Your task to perform on an android device: turn notification dots on Image 0: 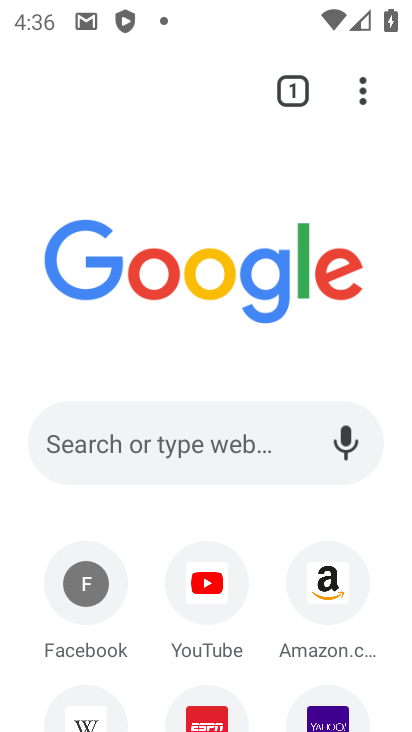
Step 0: press home button
Your task to perform on an android device: turn notification dots on Image 1: 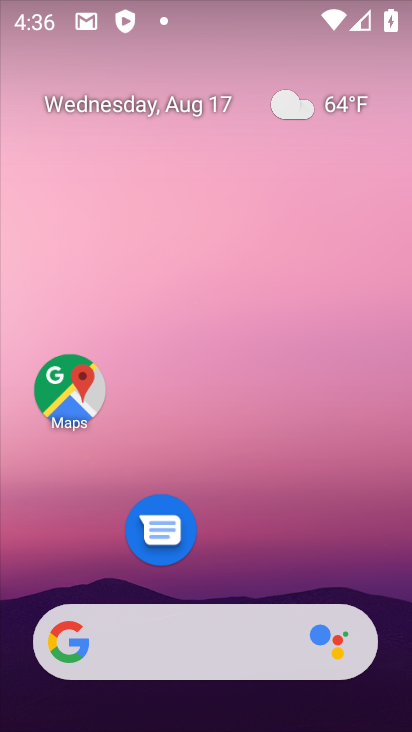
Step 1: drag from (207, 568) to (248, 114)
Your task to perform on an android device: turn notification dots on Image 2: 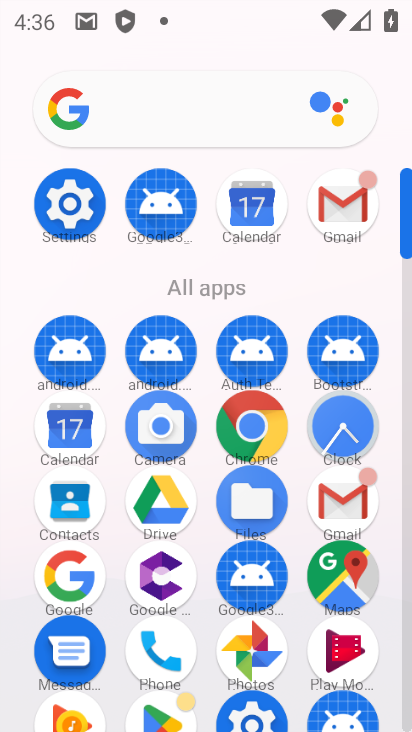
Step 2: click (70, 195)
Your task to perform on an android device: turn notification dots on Image 3: 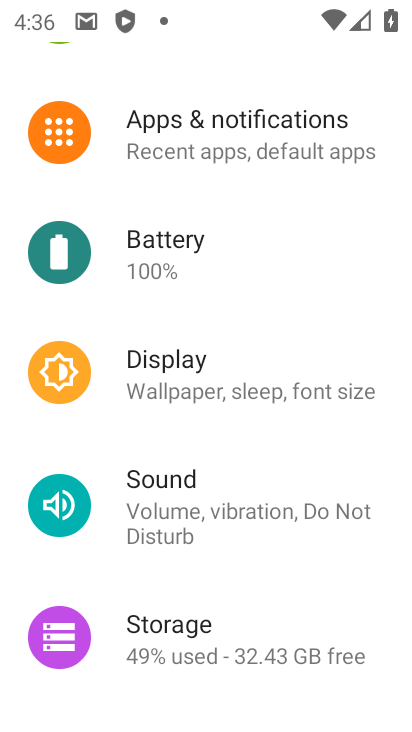
Step 3: click (188, 138)
Your task to perform on an android device: turn notification dots on Image 4: 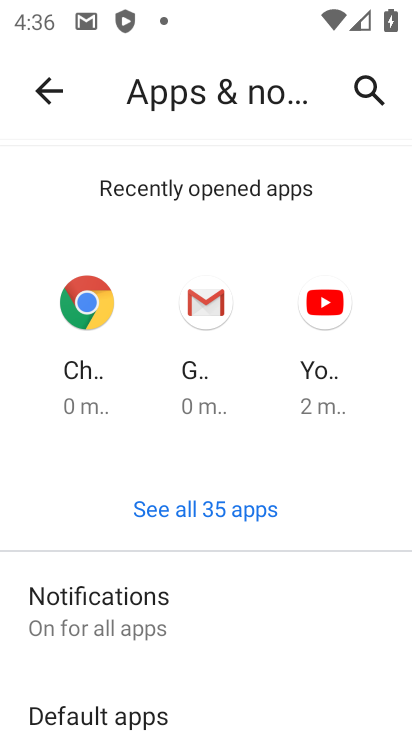
Step 4: click (97, 602)
Your task to perform on an android device: turn notification dots on Image 5: 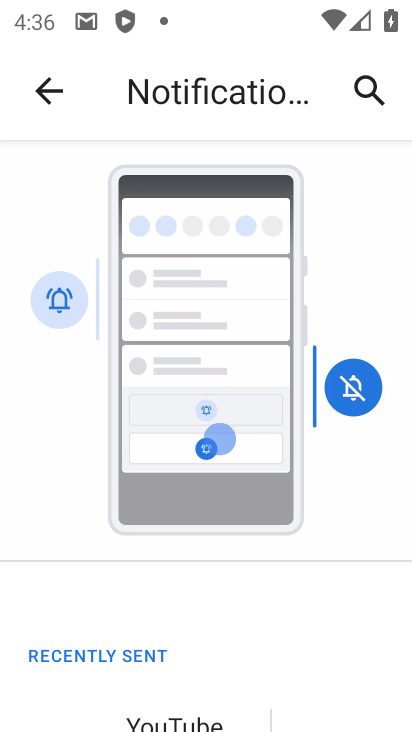
Step 5: drag from (246, 464) to (260, 153)
Your task to perform on an android device: turn notification dots on Image 6: 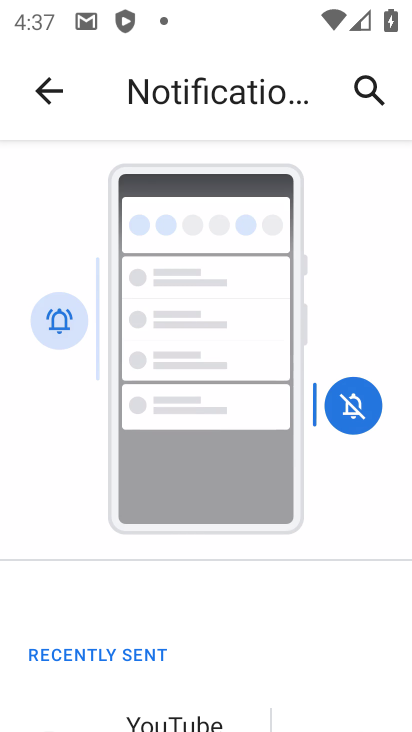
Step 6: click (225, 253)
Your task to perform on an android device: turn notification dots on Image 7: 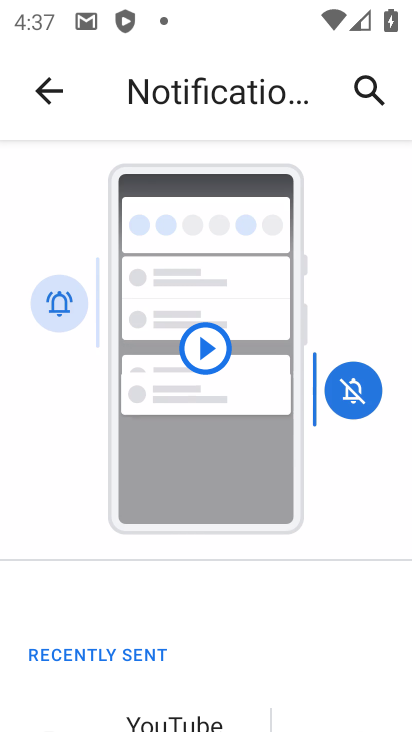
Step 7: click (237, 183)
Your task to perform on an android device: turn notification dots on Image 8: 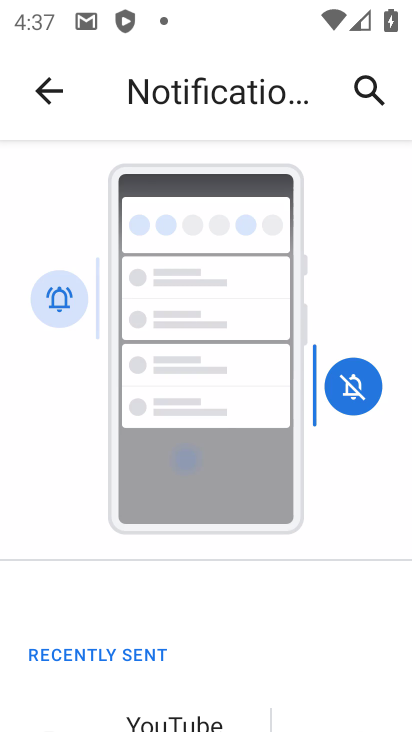
Step 8: click (203, 136)
Your task to perform on an android device: turn notification dots on Image 9: 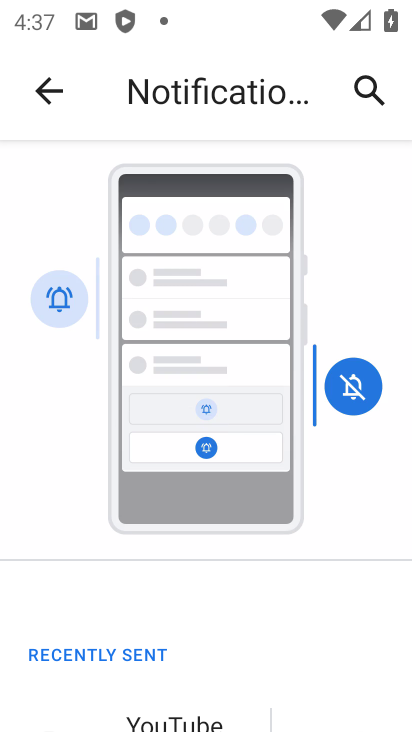
Step 9: drag from (111, 648) to (167, 219)
Your task to perform on an android device: turn notification dots on Image 10: 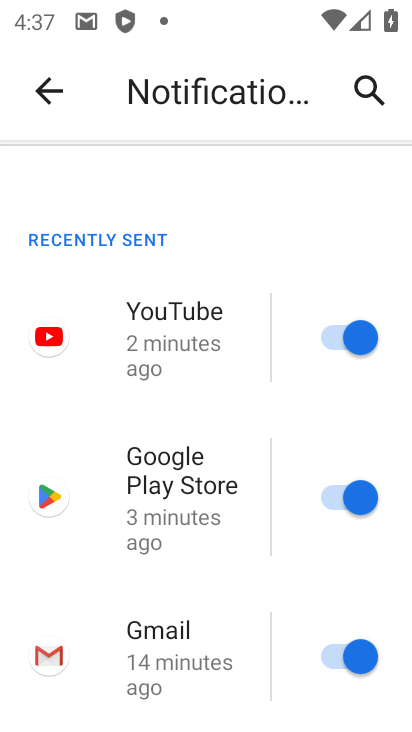
Step 10: drag from (268, 651) to (304, 271)
Your task to perform on an android device: turn notification dots on Image 11: 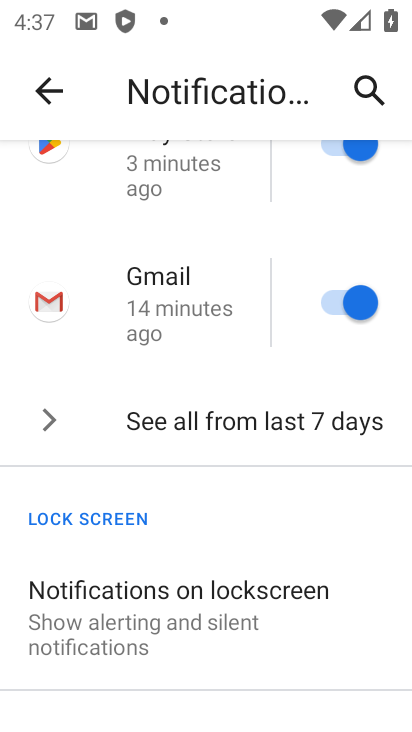
Step 11: drag from (174, 692) to (219, 353)
Your task to perform on an android device: turn notification dots on Image 12: 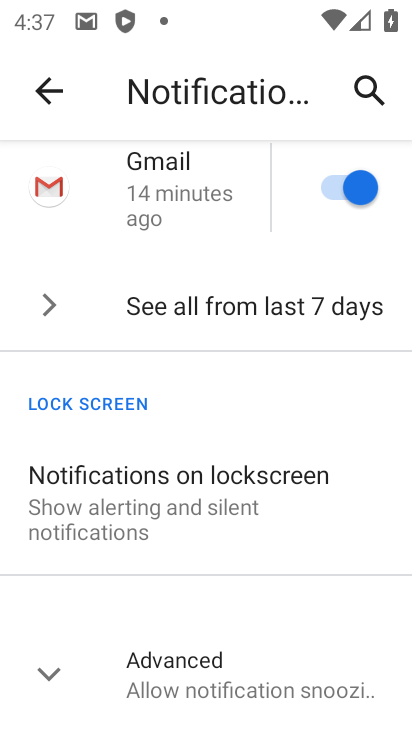
Step 12: drag from (124, 608) to (215, 152)
Your task to perform on an android device: turn notification dots on Image 13: 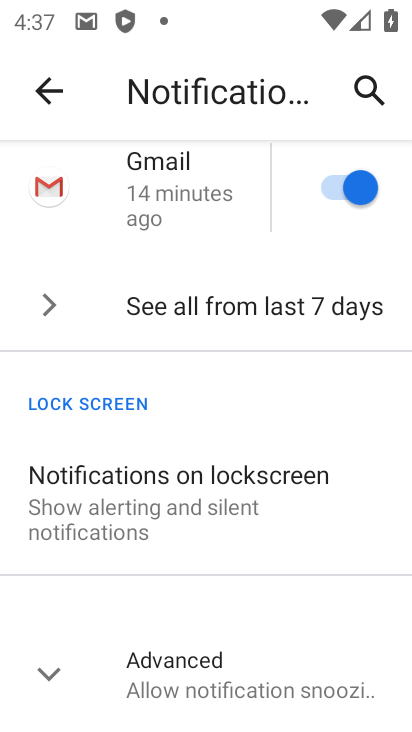
Step 13: drag from (249, 564) to (276, 351)
Your task to perform on an android device: turn notification dots on Image 14: 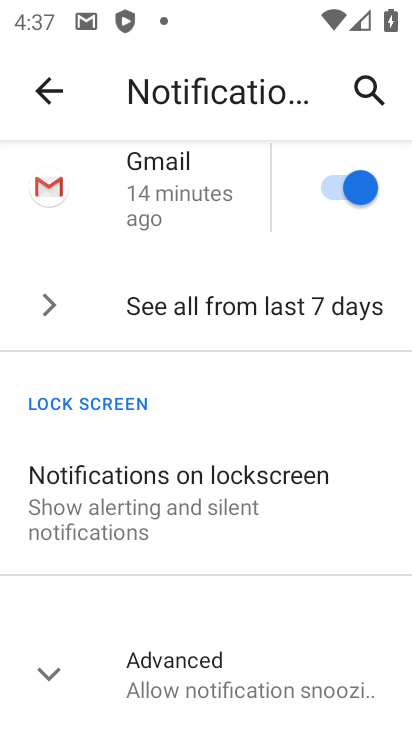
Step 14: drag from (244, 484) to (183, 15)
Your task to perform on an android device: turn notification dots on Image 15: 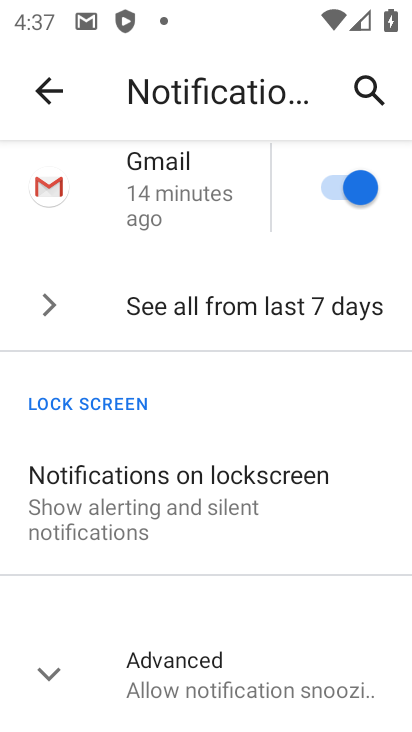
Step 15: click (292, 592)
Your task to perform on an android device: turn notification dots on Image 16: 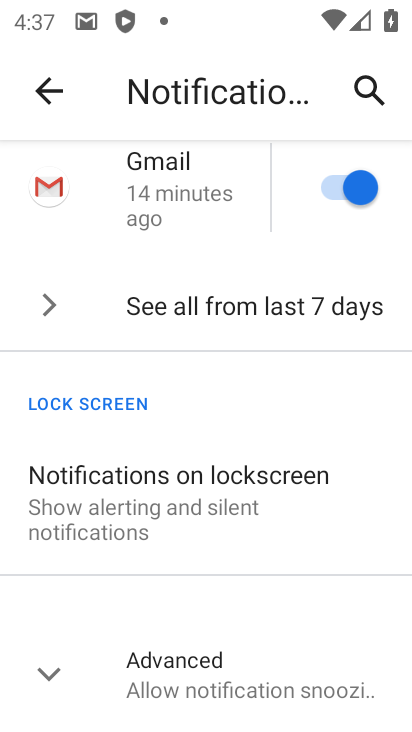
Step 16: click (192, 695)
Your task to perform on an android device: turn notification dots on Image 17: 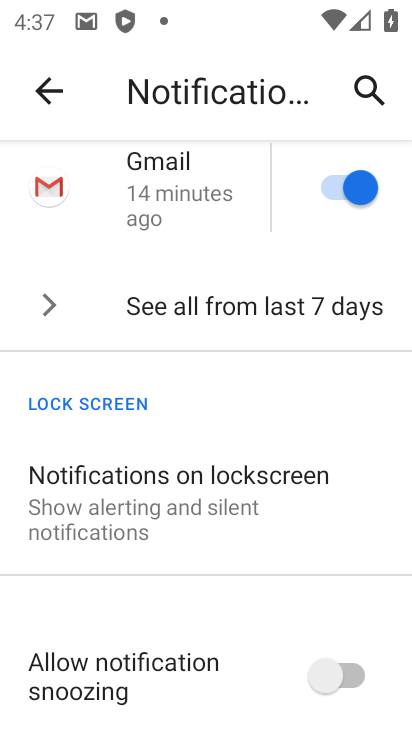
Step 17: task complete